Your task to perform on an android device: Open Chrome and go to settings Image 0: 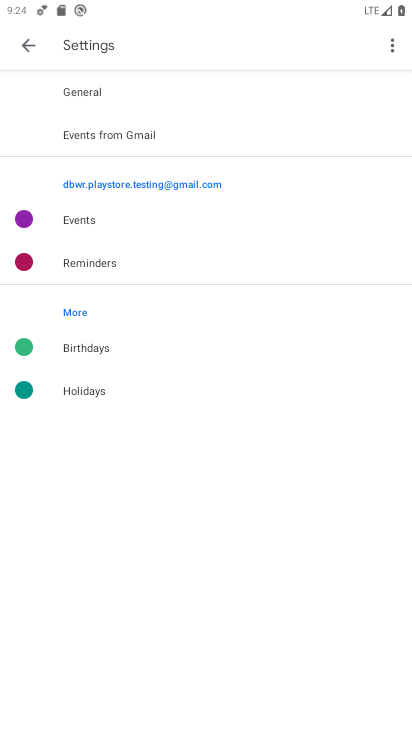
Step 0: press home button
Your task to perform on an android device: Open Chrome and go to settings Image 1: 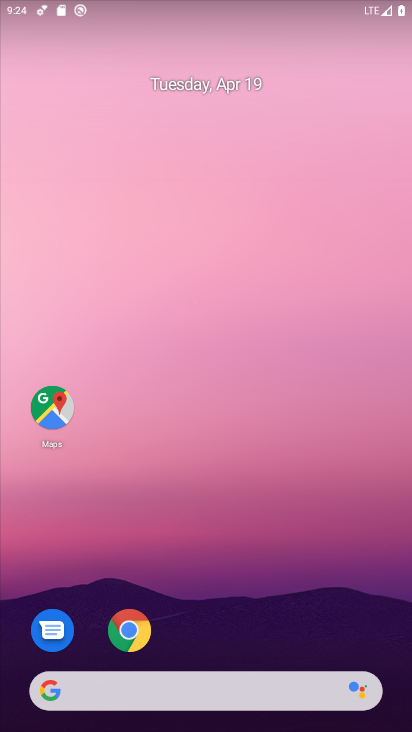
Step 1: drag from (235, 656) to (284, 170)
Your task to perform on an android device: Open Chrome and go to settings Image 2: 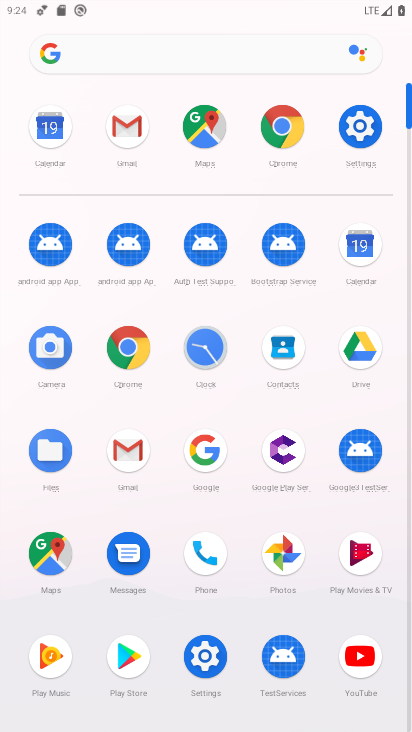
Step 2: click (284, 201)
Your task to perform on an android device: Open Chrome and go to settings Image 3: 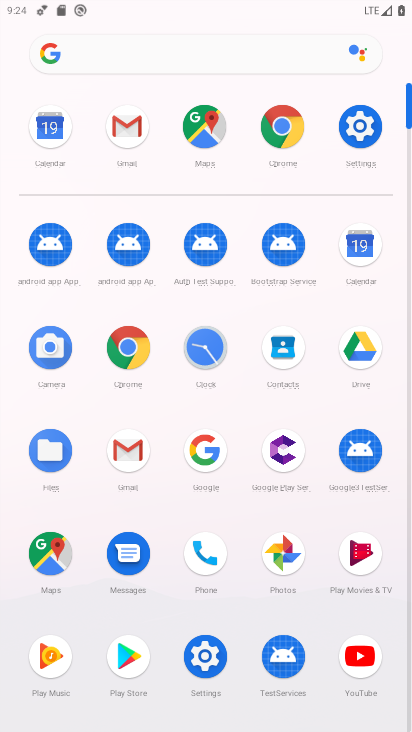
Step 3: click (287, 143)
Your task to perform on an android device: Open Chrome and go to settings Image 4: 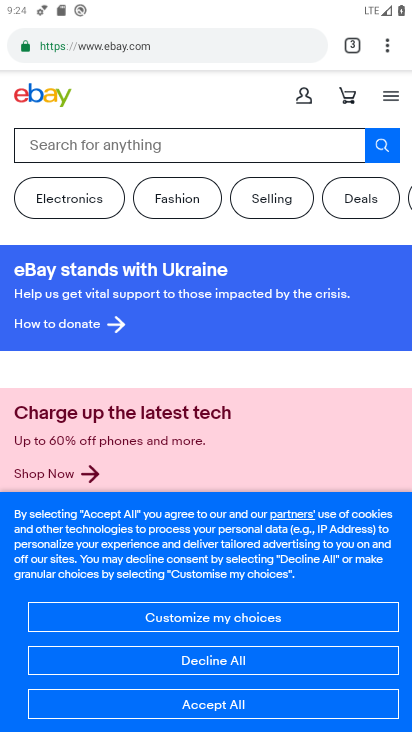
Step 4: click (390, 49)
Your task to perform on an android device: Open Chrome and go to settings Image 5: 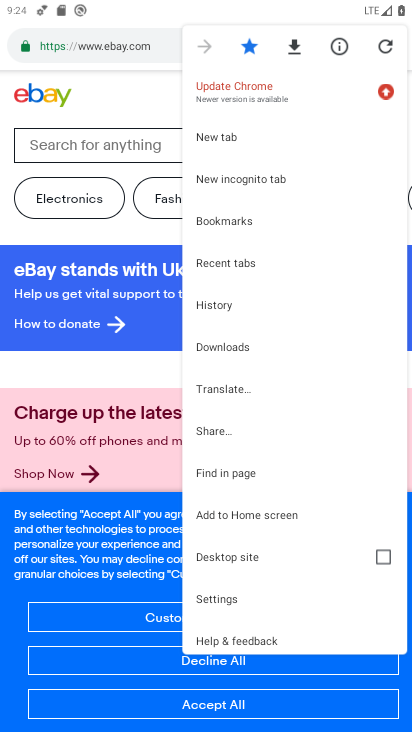
Step 5: drag from (259, 503) to (321, 180)
Your task to perform on an android device: Open Chrome and go to settings Image 6: 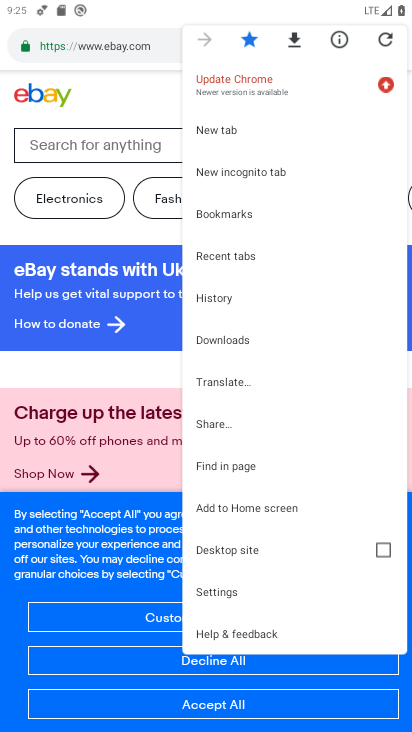
Step 6: click (263, 593)
Your task to perform on an android device: Open Chrome and go to settings Image 7: 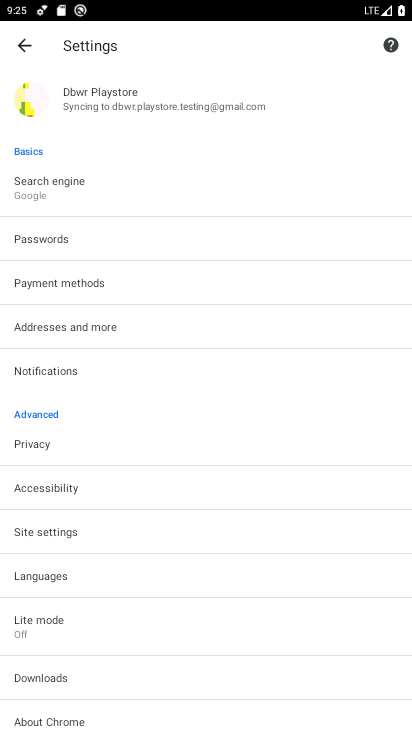
Step 7: task complete